Your task to perform on an android device: Open Google Chrome and click the shortcut for Amazon.com Image 0: 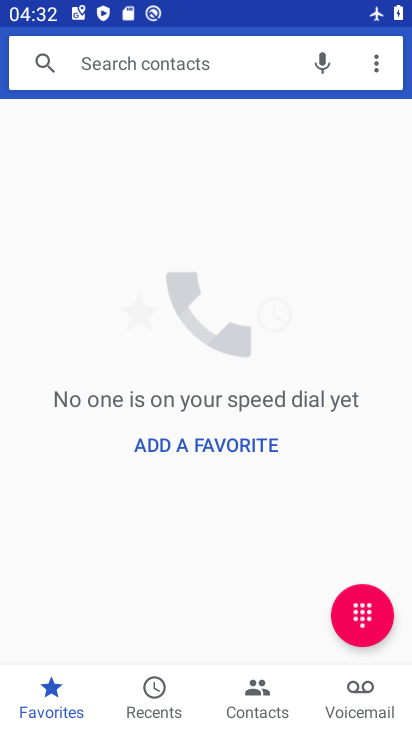
Step 0: press back button
Your task to perform on an android device: Open Google Chrome and click the shortcut for Amazon.com Image 1: 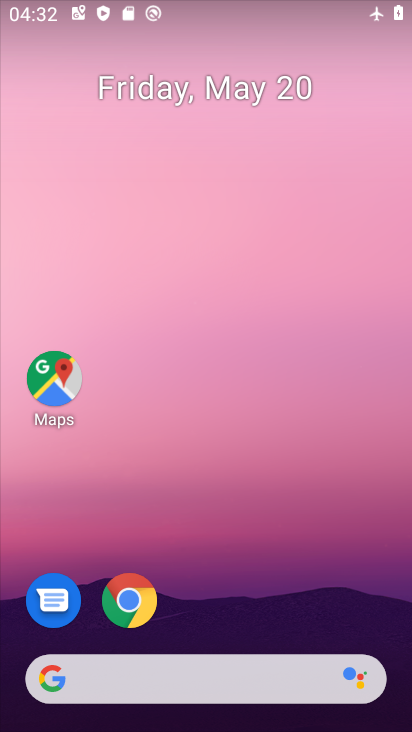
Step 1: drag from (236, 576) to (222, 57)
Your task to perform on an android device: Open Google Chrome and click the shortcut for Amazon.com Image 2: 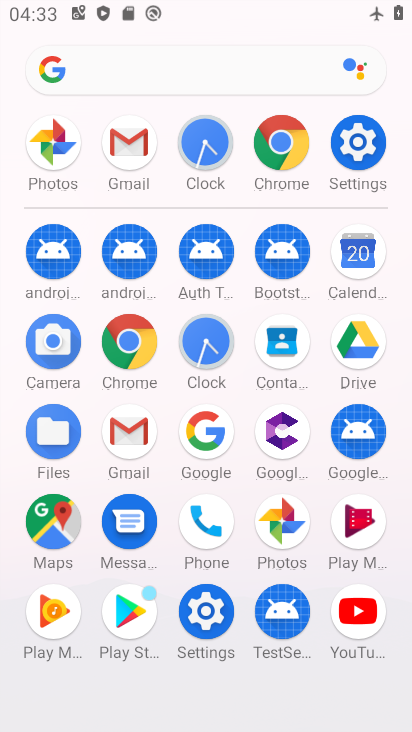
Step 2: click (119, 337)
Your task to perform on an android device: Open Google Chrome and click the shortcut for Amazon.com Image 3: 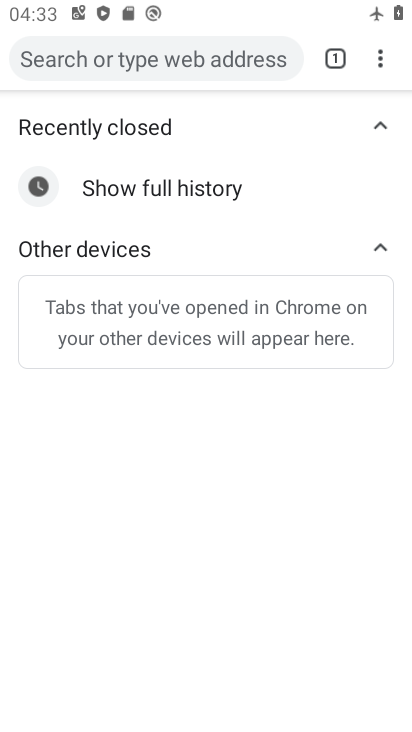
Step 3: click (190, 53)
Your task to perform on an android device: Open Google Chrome and click the shortcut for Amazon.com Image 4: 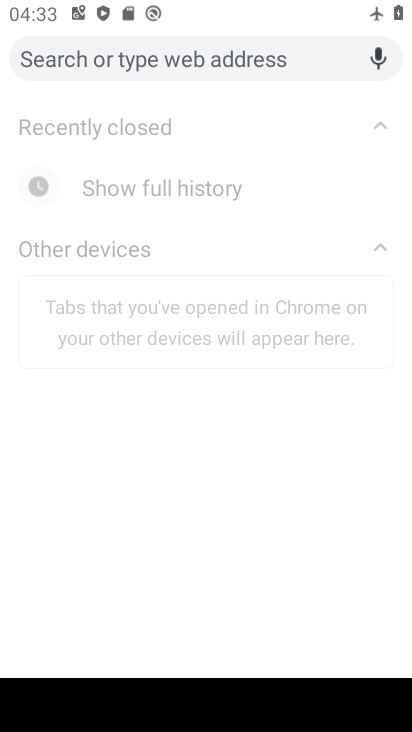
Step 4: type "Amazon.com"
Your task to perform on an android device: Open Google Chrome and click the shortcut for Amazon.com Image 5: 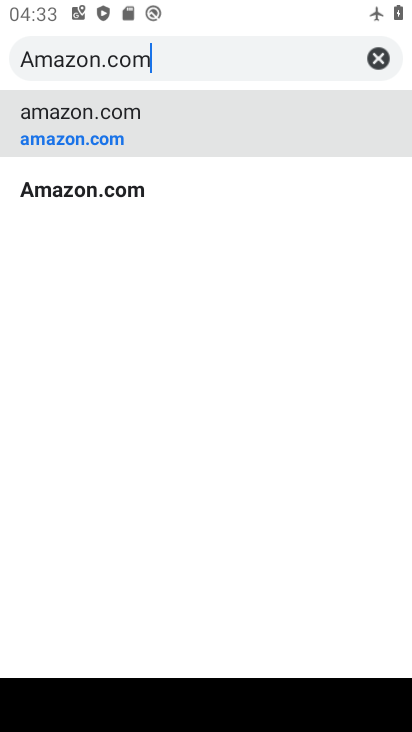
Step 5: type ""
Your task to perform on an android device: Open Google Chrome and click the shortcut for Amazon.com Image 6: 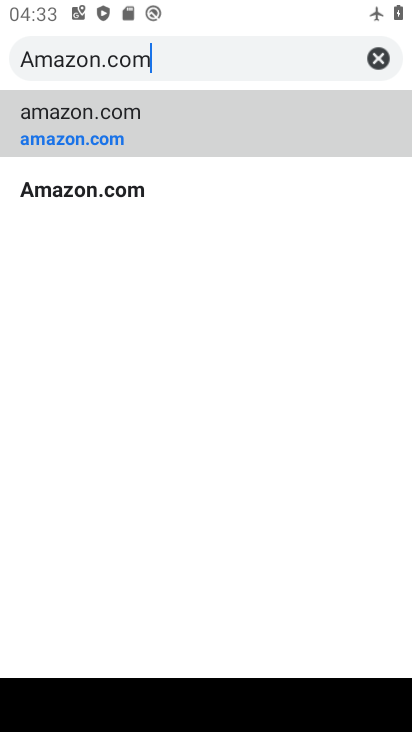
Step 6: click (187, 147)
Your task to perform on an android device: Open Google Chrome and click the shortcut for Amazon.com Image 7: 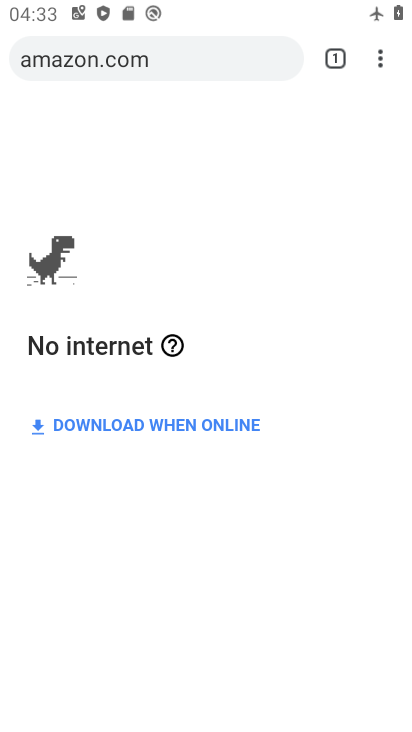
Step 7: task complete